Your task to perform on an android device: toggle sleep mode Image 0: 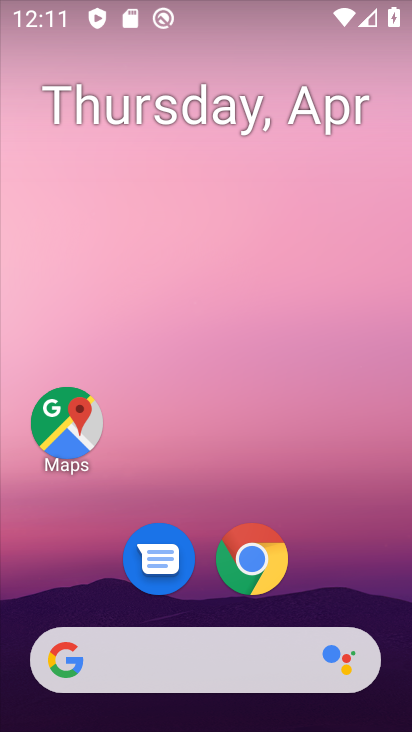
Step 0: drag from (237, 509) to (245, 259)
Your task to perform on an android device: toggle sleep mode Image 1: 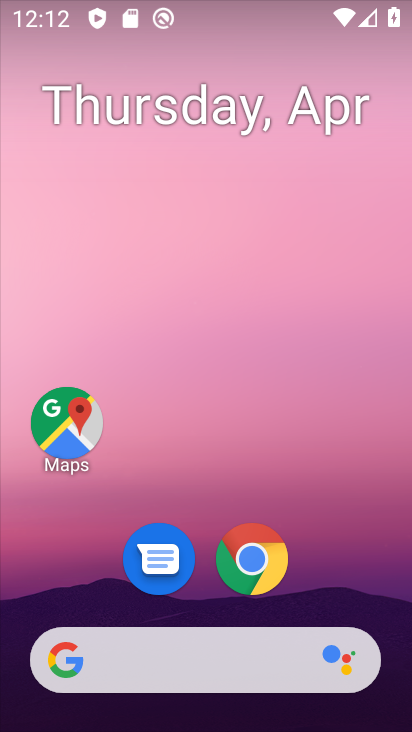
Step 1: drag from (252, 641) to (288, 148)
Your task to perform on an android device: toggle sleep mode Image 2: 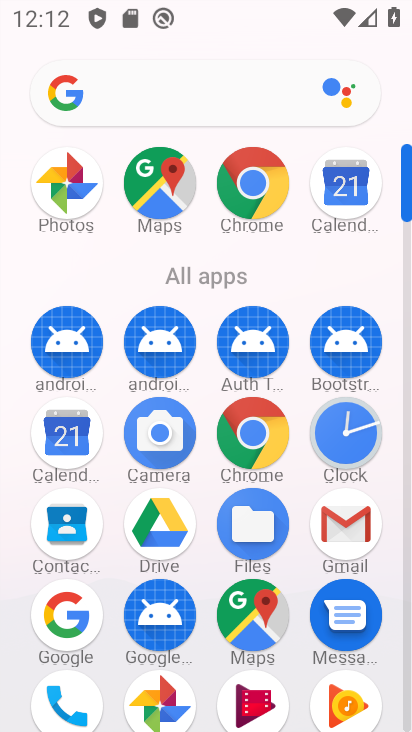
Step 2: drag from (201, 646) to (219, 474)
Your task to perform on an android device: toggle sleep mode Image 3: 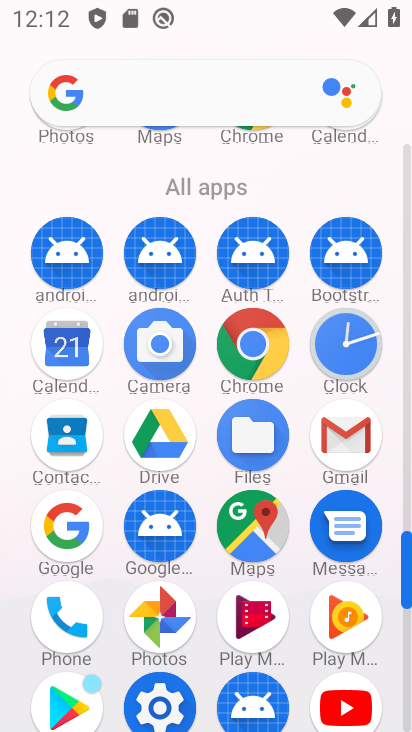
Step 3: click (156, 710)
Your task to perform on an android device: toggle sleep mode Image 4: 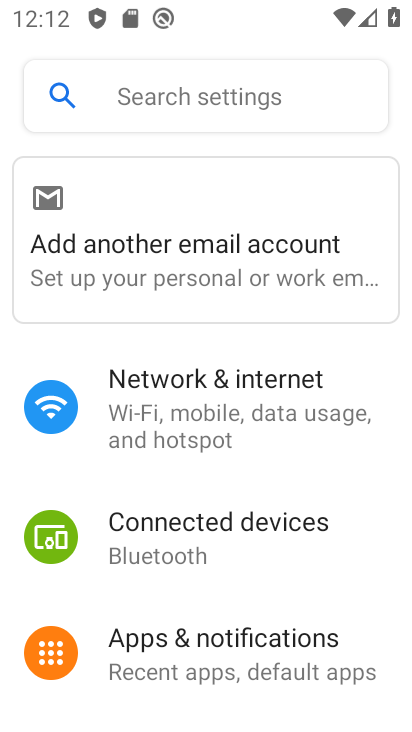
Step 4: drag from (133, 607) to (153, 392)
Your task to perform on an android device: toggle sleep mode Image 5: 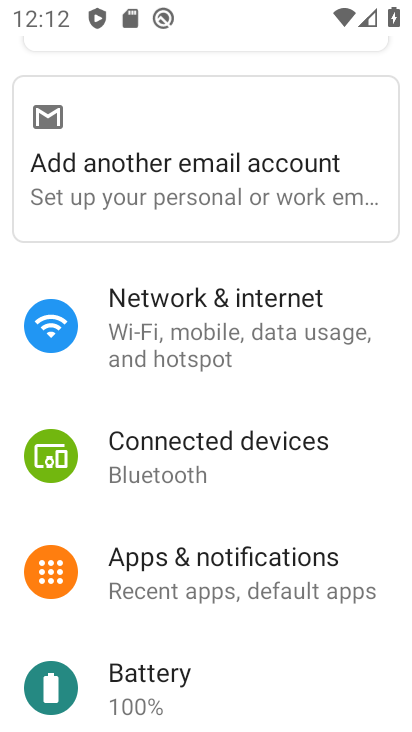
Step 5: drag from (212, 656) to (208, 451)
Your task to perform on an android device: toggle sleep mode Image 6: 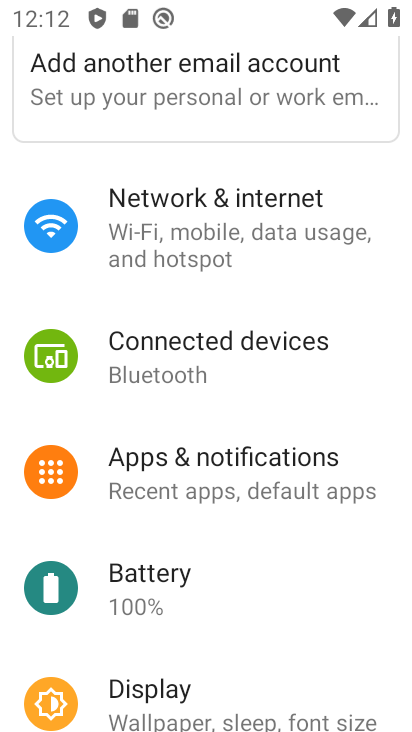
Step 6: click (180, 703)
Your task to perform on an android device: toggle sleep mode Image 7: 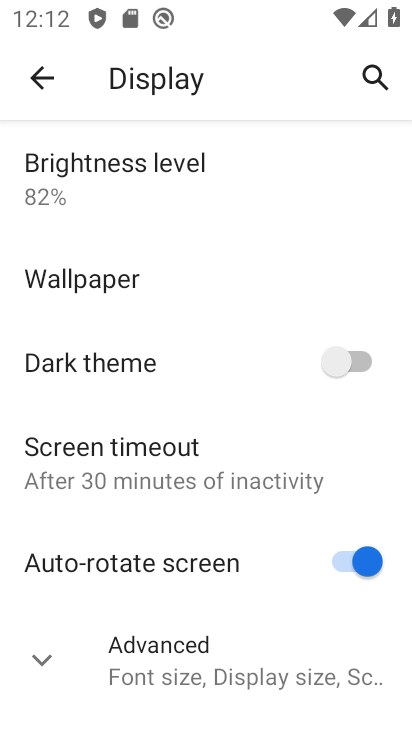
Step 7: drag from (120, 572) to (120, 392)
Your task to perform on an android device: toggle sleep mode Image 8: 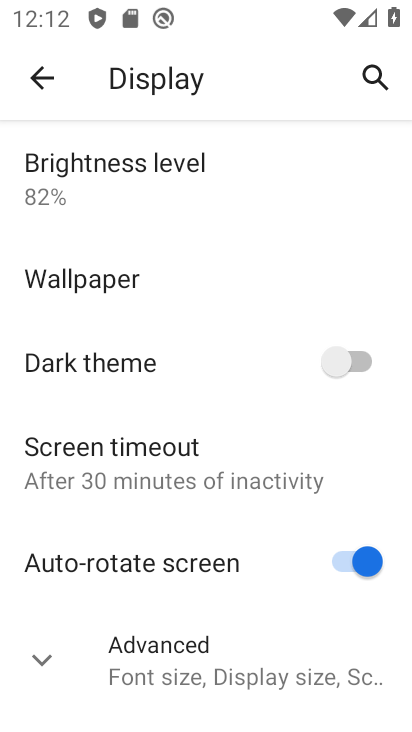
Step 8: click (33, 666)
Your task to perform on an android device: toggle sleep mode Image 9: 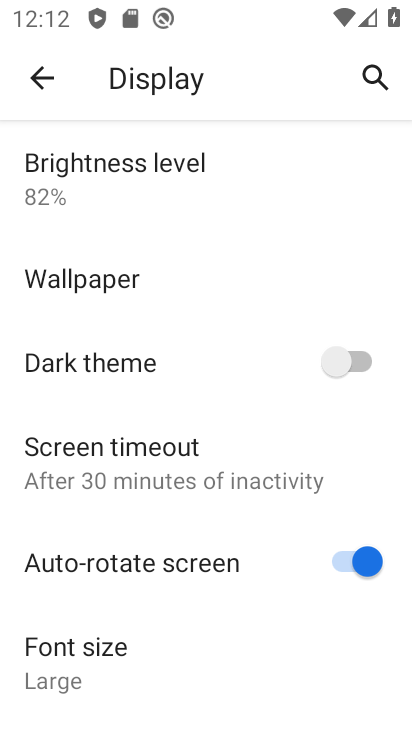
Step 9: drag from (133, 678) to (195, 416)
Your task to perform on an android device: toggle sleep mode Image 10: 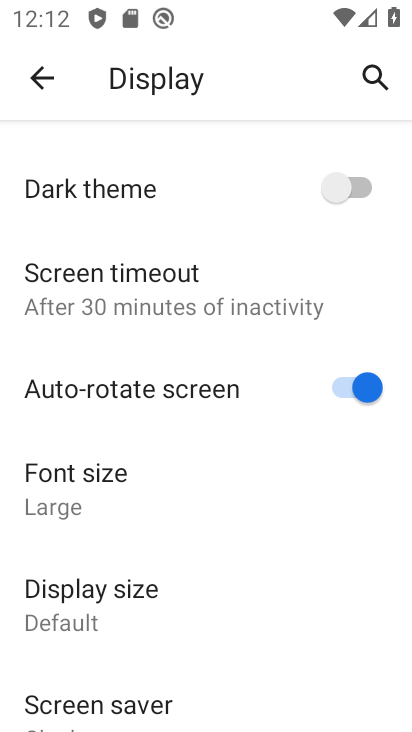
Step 10: drag from (215, 653) to (225, 460)
Your task to perform on an android device: toggle sleep mode Image 11: 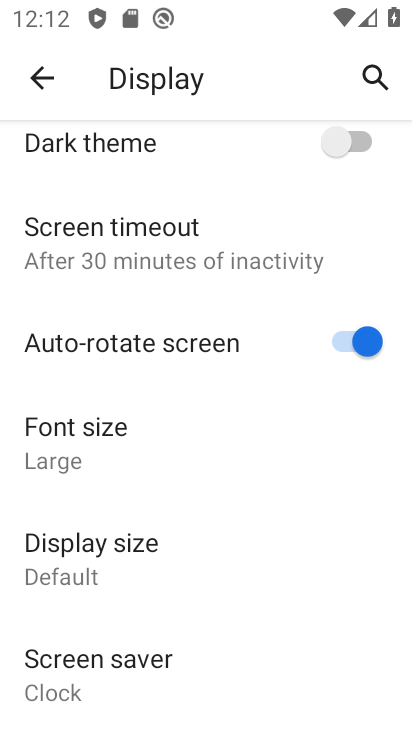
Step 11: drag from (206, 705) to (218, 557)
Your task to perform on an android device: toggle sleep mode Image 12: 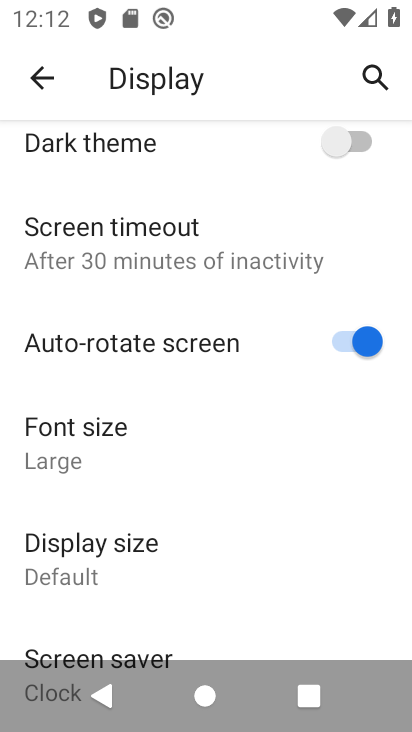
Step 12: drag from (200, 624) to (192, 450)
Your task to perform on an android device: toggle sleep mode Image 13: 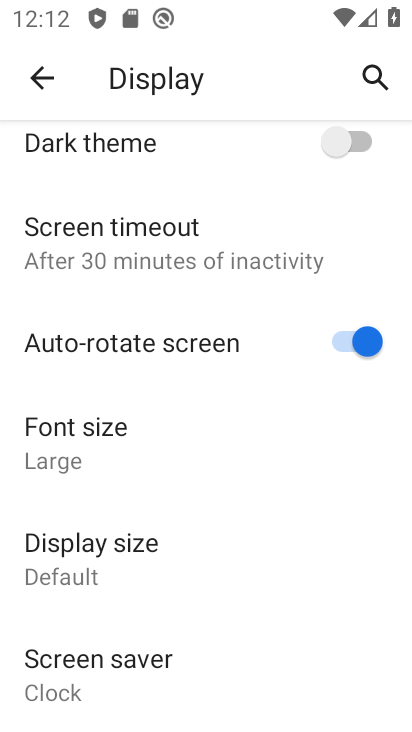
Step 13: drag from (184, 191) to (93, 683)
Your task to perform on an android device: toggle sleep mode Image 14: 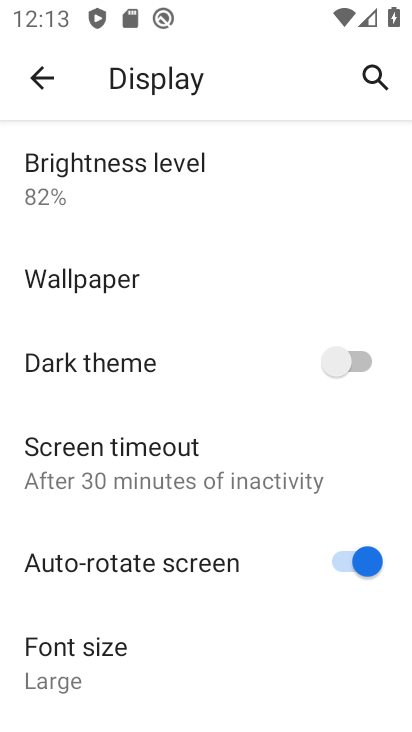
Step 14: click (161, 472)
Your task to perform on an android device: toggle sleep mode Image 15: 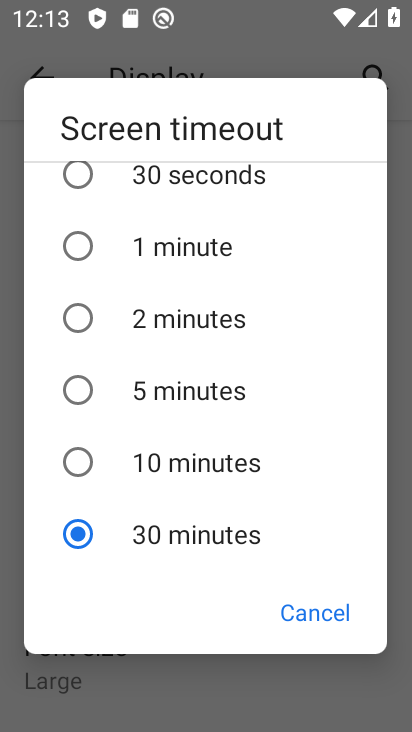
Step 15: click (81, 176)
Your task to perform on an android device: toggle sleep mode Image 16: 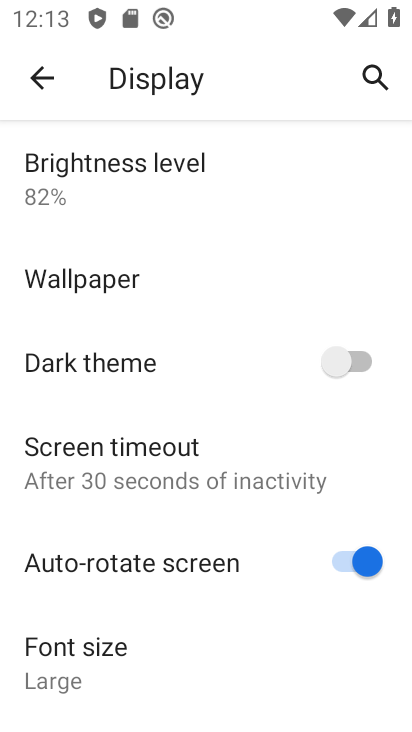
Step 16: task complete